Your task to perform on an android device: Open the Play Movies app and select the watchlist tab. Image 0: 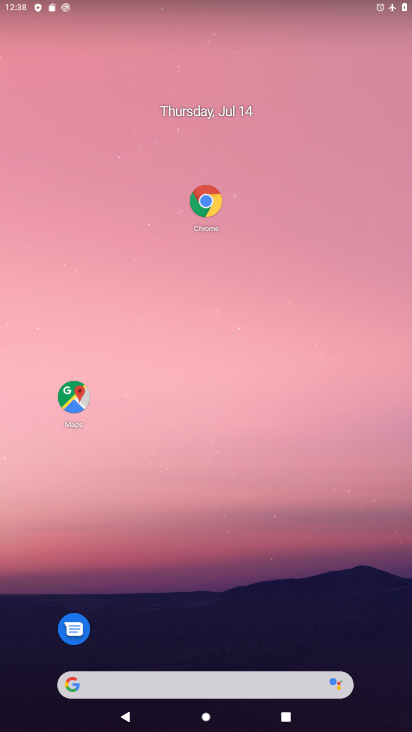
Step 0: drag from (183, 663) to (147, 227)
Your task to perform on an android device: Open the Play Movies app and select the watchlist tab. Image 1: 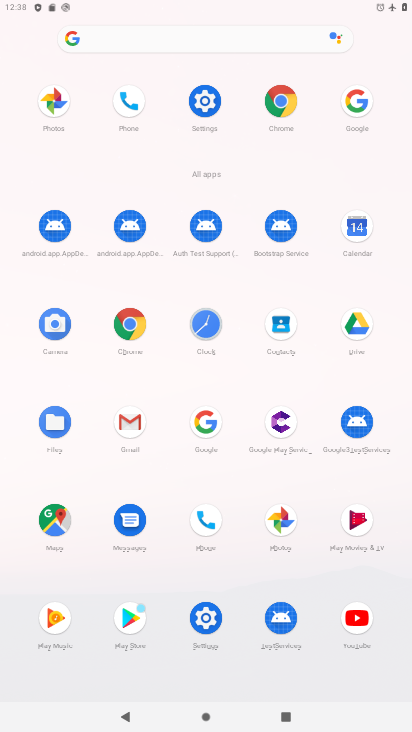
Step 1: click (361, 514)
Your task to perform on an android device: Open the Play Movies app and select the watchlist tab. Image 2: 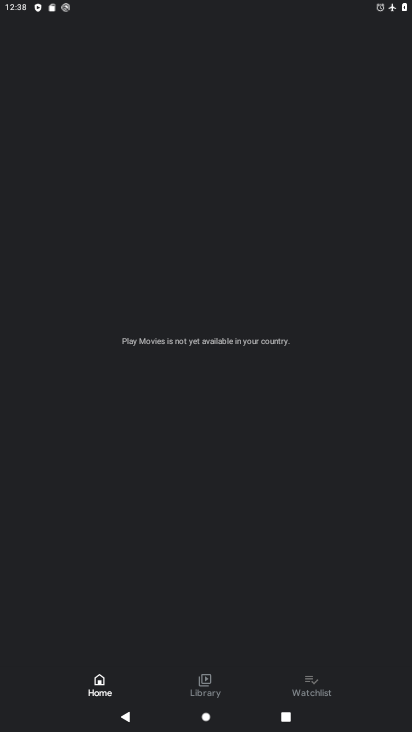
Step 2: click (310, 679)
Your task to perform on an android device: Open the Play Movies app and select the watchlist tab. Image 3: 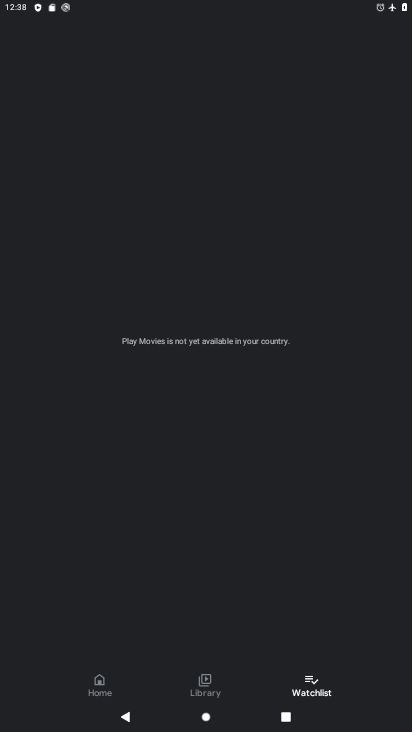
Step 3: task complete